Your task to perform on an android device: Open CNN.com Image 0: 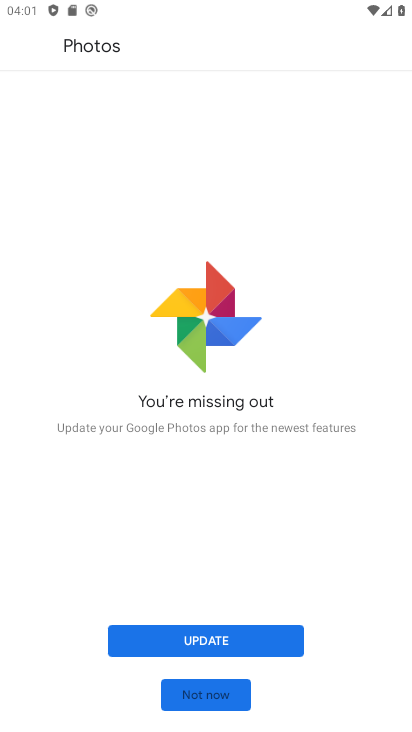
Step 0: press home button
Your task to perform on an android device: Open CNN.com Image 1: 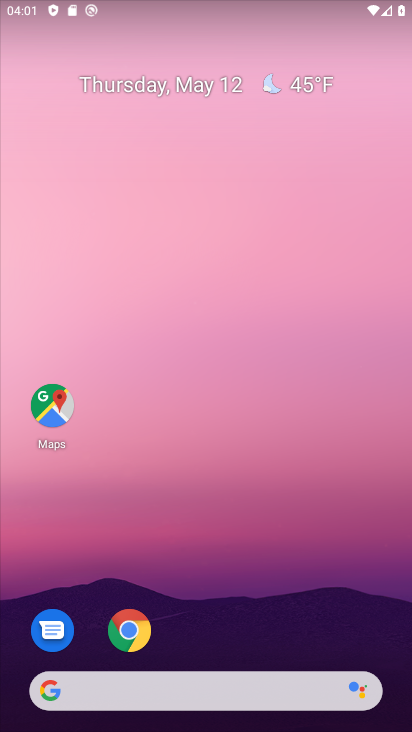
Step 1: click (131, 629)
Your task to perform on an android device: Open CNN.com Image 2: 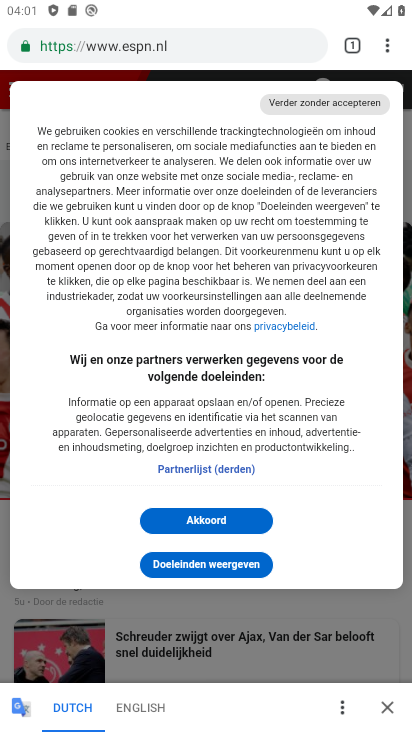
Step 2: click (152, 40)
Your task to perform on an android device: Open CNN.com Image 3: 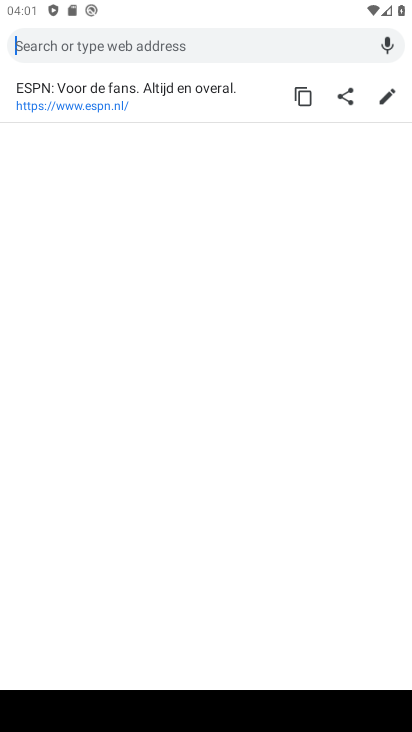
Step 3: type "CNN.com"
Your task to perform on an android device: Open CNN.com Image 4: 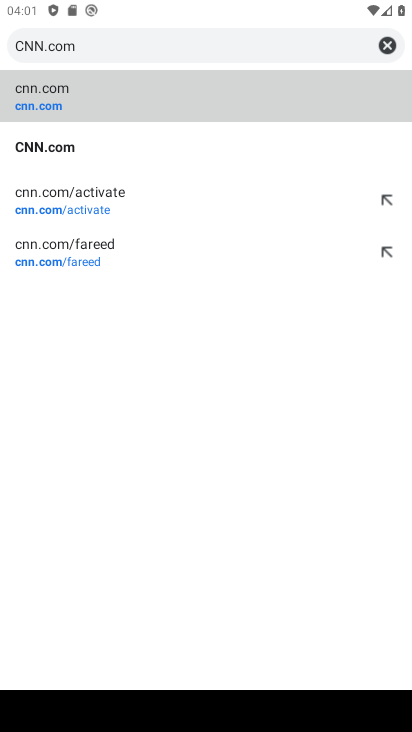
Step 4: click (68, 147)
Your task to perform on an android device: Open CNN.com Image 5: 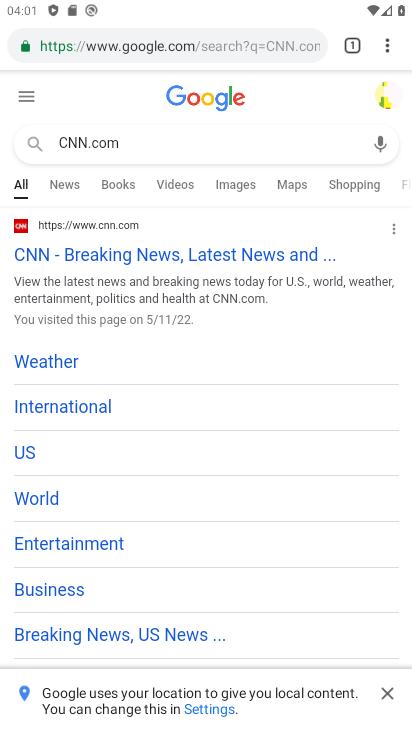
Step 5: task complete